Your task to perform on an android device: Open notification settings Image 0: 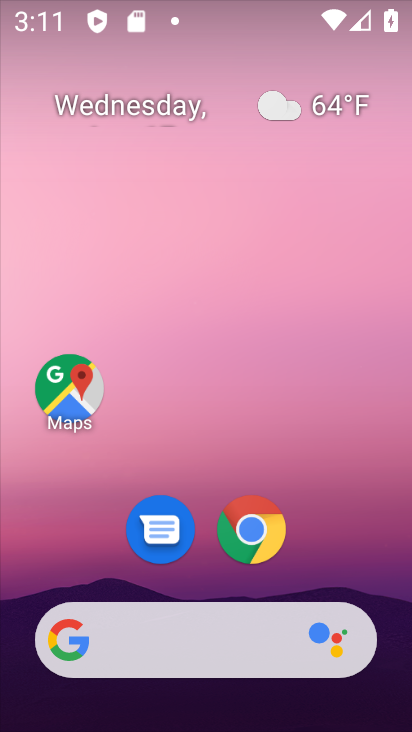
Step 0: drag from (182, 665) to (249, 85)
Your task to perform on an android device: Open notification settings Image 1: 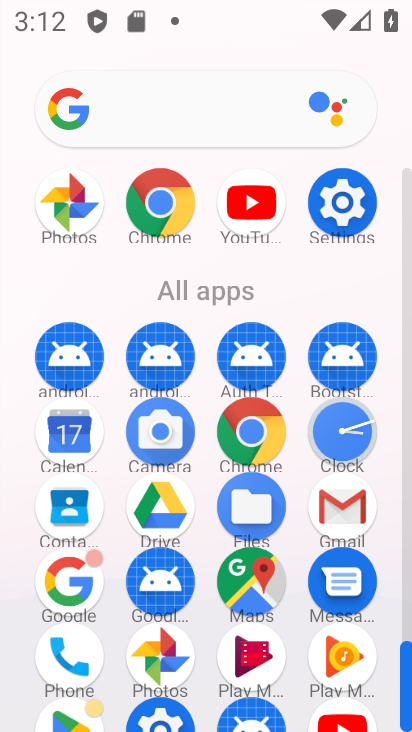
Step 1: click (335, 211)
Your task to perform on an android device: Open notification settings Image 2: 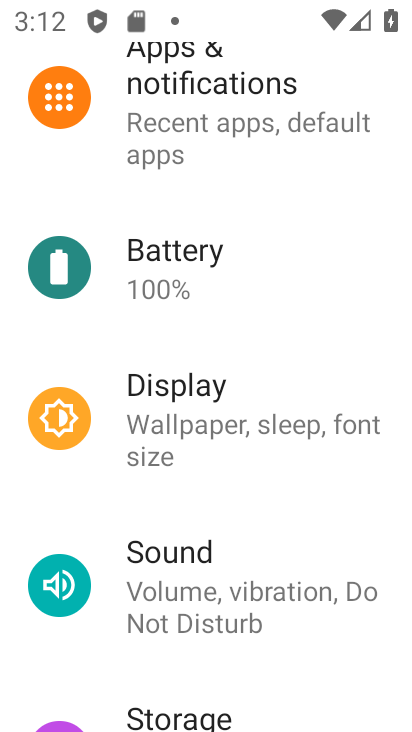
Step 2: click (245, 144)
Your task to perform on an android device: Open notification settings Image 3: 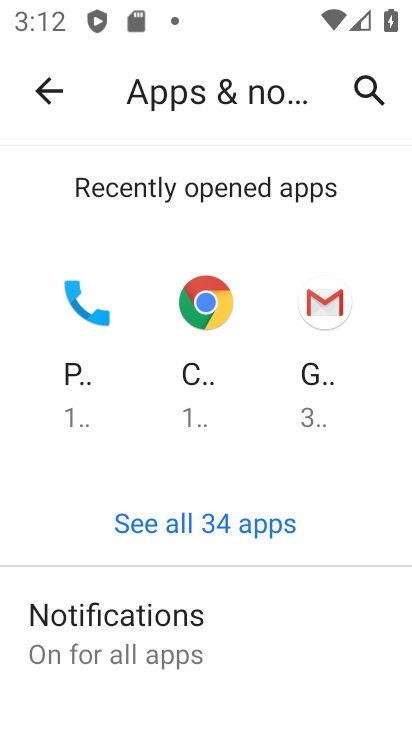
Step 3: task complete